Your task to perform on an android device: find which apps use the phone's location Image 0: 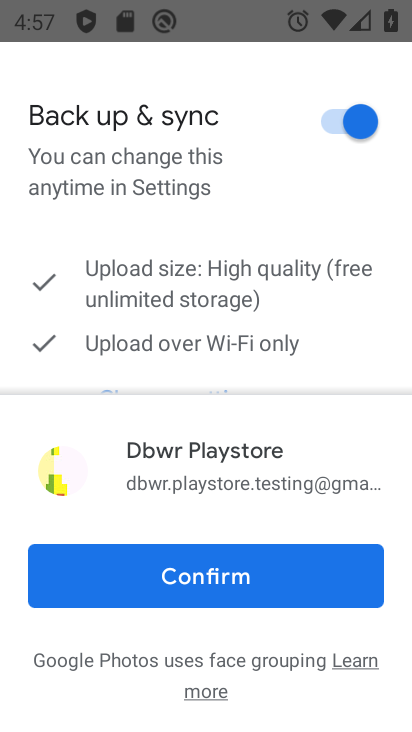
Step 0: press home button
Your task to perform on an android device: find which apps use the phone's location Image 1: 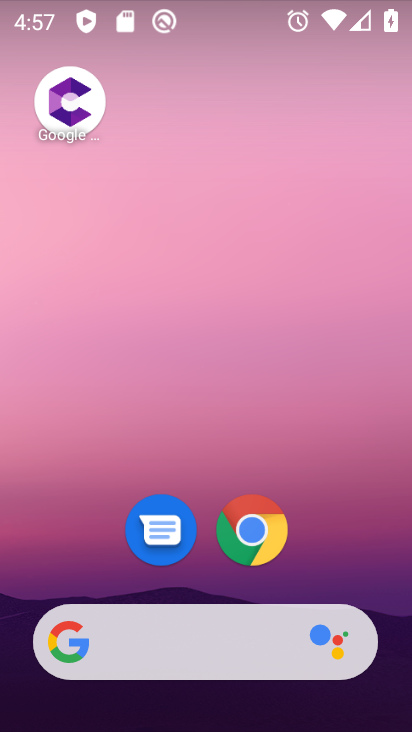
Step 1: drag from (332, 566) to (336, 121)
Your task to perform on an android device: find which apps use the phone's location Image 2: 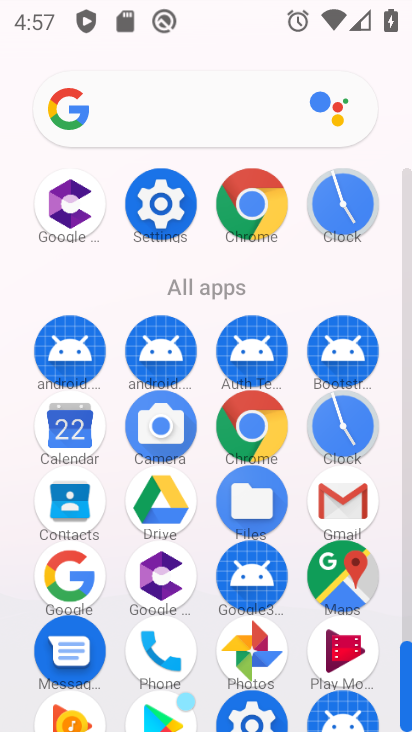
Step 2: click (156, 656)
Your task to perform on an android device: find which apps use the phone's location Image 3: 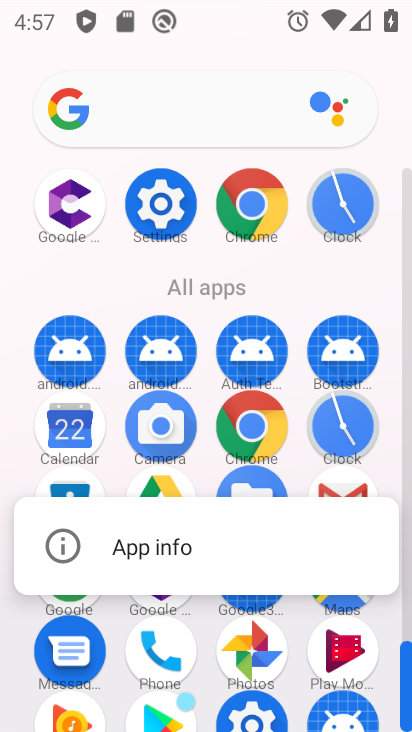
Step 3: click (165, 551)
Your task to perform on an android device: find which apps use the phone's location Image 4: 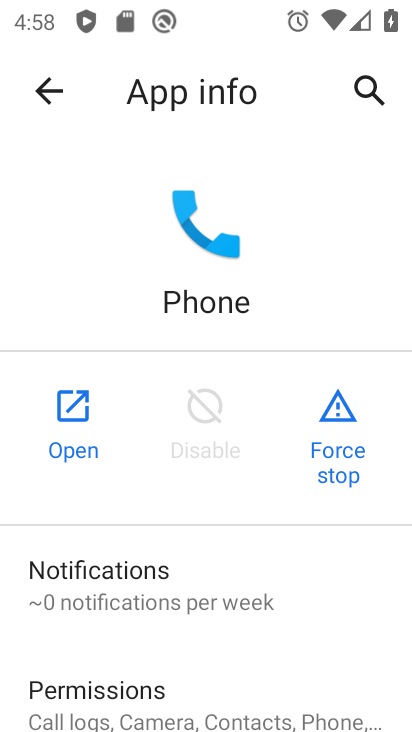
Step 4: drag from (292, 566) to (292, 254)
Your task to perform on an android device: find which apps use the phone's location Image 5: 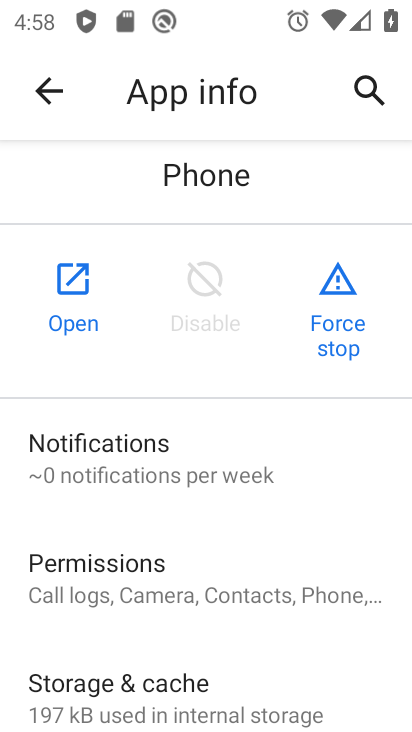
Step 5: click (117, 570)
Your task to perform on an android device: find which apps use the phone's location Image 6: 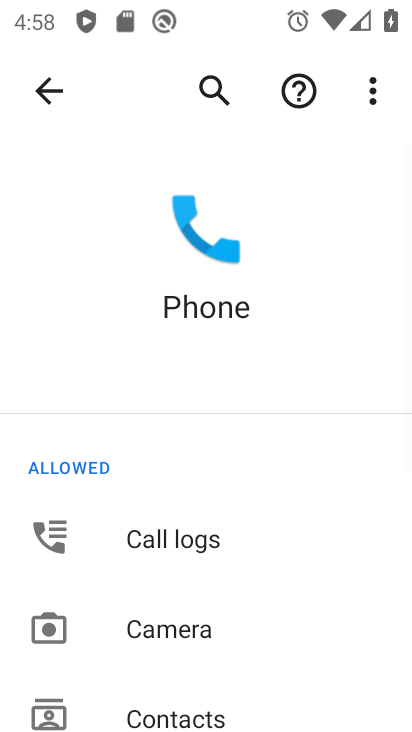
Step 6: drag from (309, 669) to (340, 257)
Your task to perform on an android device: find which apps use the phone's location Image 7: 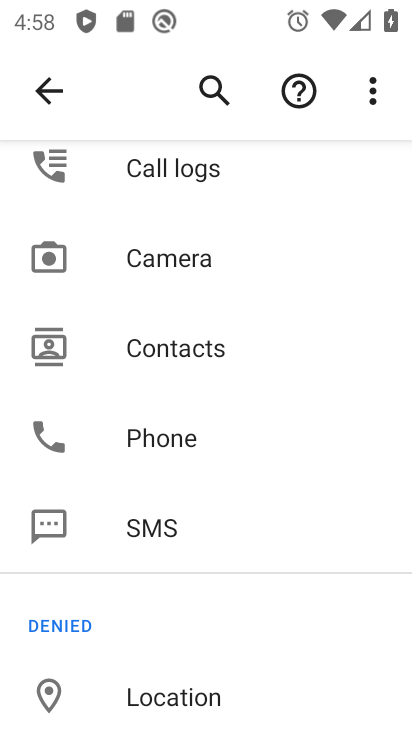
Step 7: click (188, 696)
Your task to perform on an android device: find which apps use the phone's location Image 8: 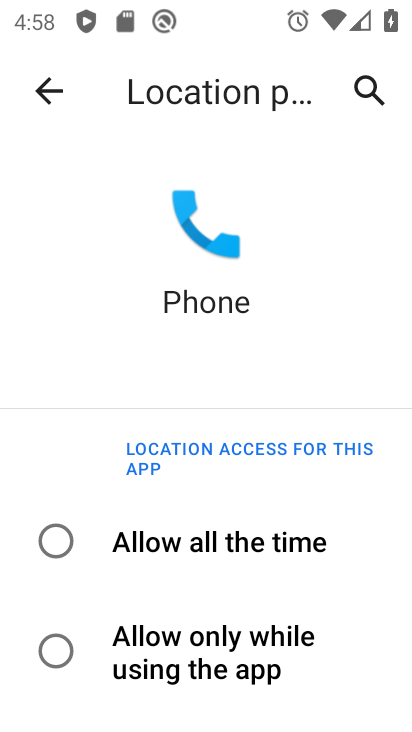
Step 8: task complete